Your task to perform on an android device: Go to accessibility settings Image 0: 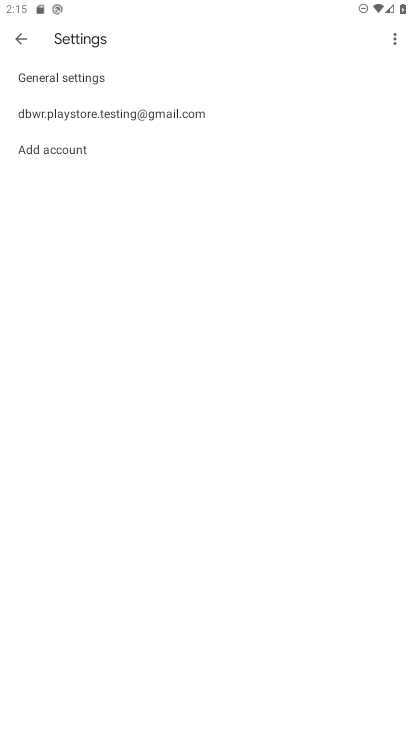
Step 0: press home button
Your task to perform on an android device: Go to accessibility settings Image 1: 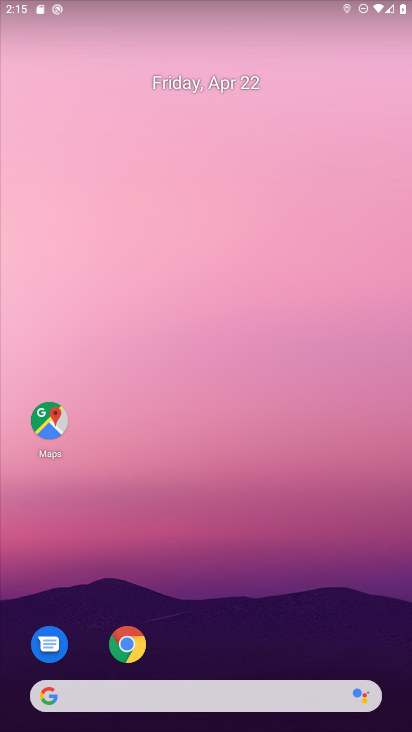
Step 1: drag from (316, 613) to (280, 102)
Your task to perform on an android device: Go to accessibility settings Image 2: 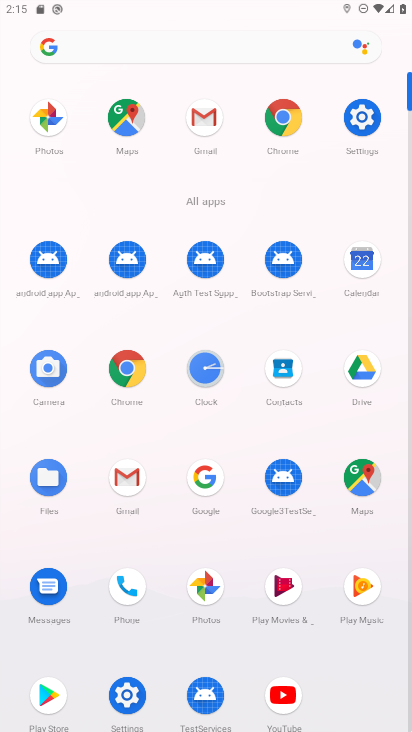
Step 2: click (129, 694)
Your task to perform on an android device: Go to accessibility settings Image 3: 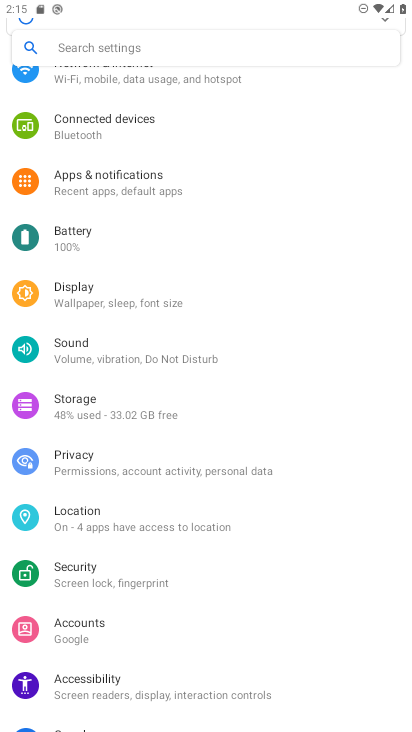
Step 3: drag from (185, 644) to (191, 441)
Your task to perform on an android device: Go to accessibility settings Image 4: 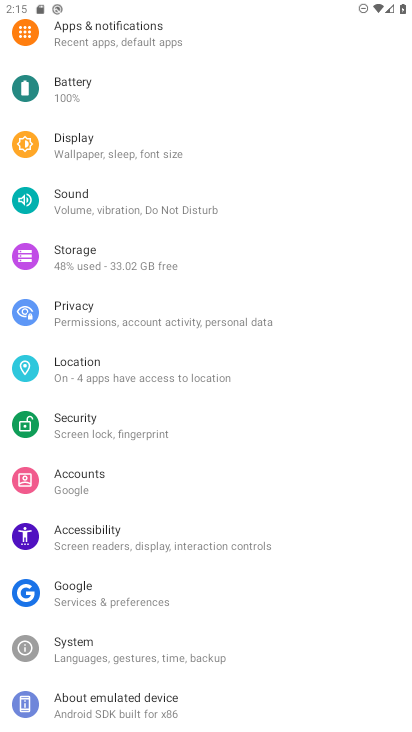
Step 4: click (103, 519)
Your task to perform on an android device: Go to accessibility settings Image 5: 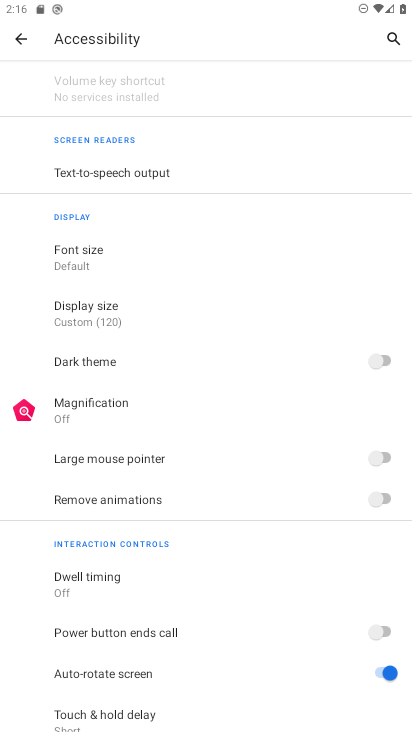
Step 5: task complete